Your task to perform on an android device: What is the speed of a rocket? Image 0: 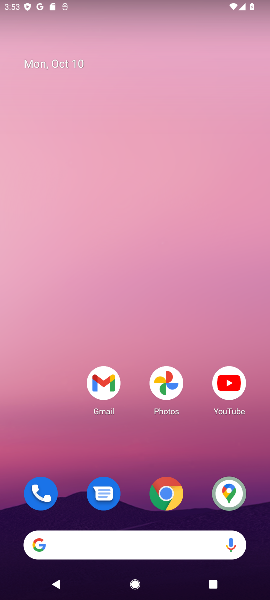
Step 0: click (164, 554)
Your task to perform on an android device: What is the speed of a rocket? Image 1: 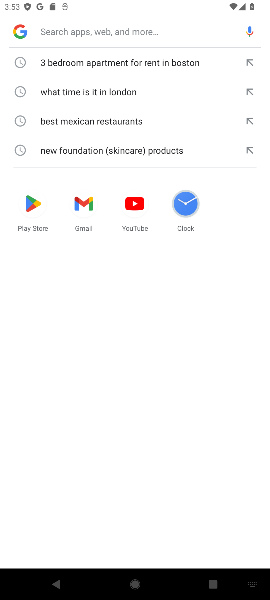
Step 1: type "the speed of a rocket"
Your task to perform on an android device: What is the speed of a rocket? Image 2: 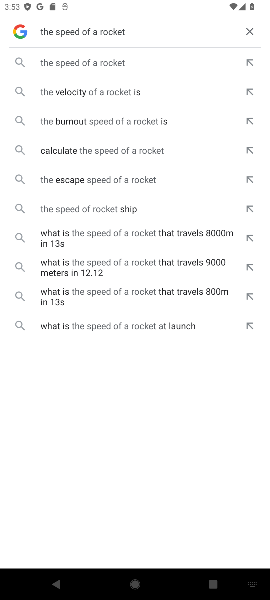
Step 2: click (142, 70)
Your task to perform on an android device: What is the speed of a rocket? Image 3: 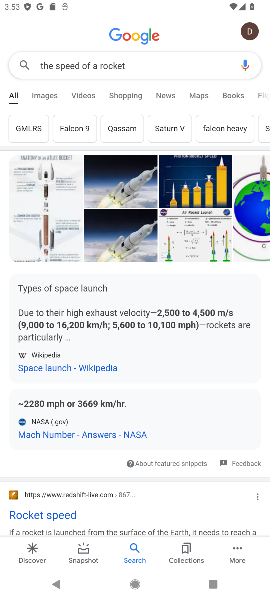
Step 3: task complete